Your task to perform on an android device: Show me productivity apps on the Play Store Image 0: 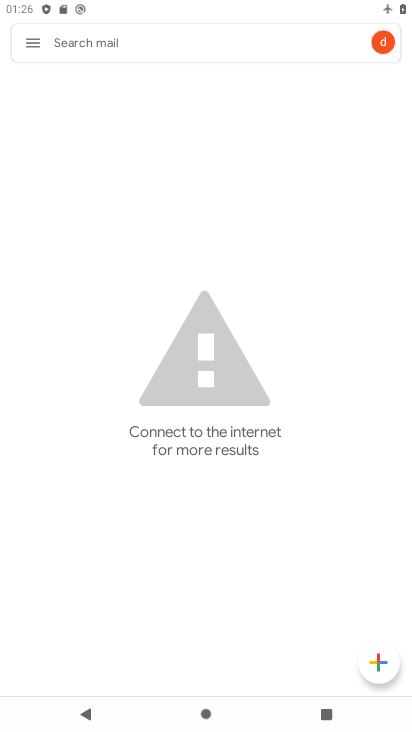
Step 0: press home button
Your task to perform on an android device: Show me productivity apps on the Play Store Image 1: 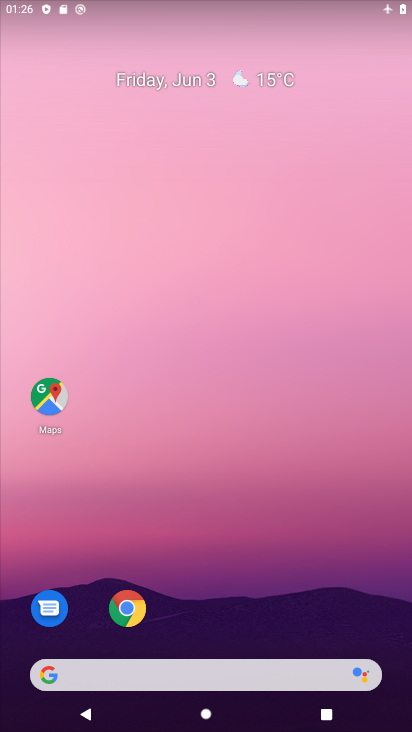
Step 1: drag from (301, 543) to (239, 307)
Your task to perform on an android device: Show me productivity apps on the Play Store Image 2: 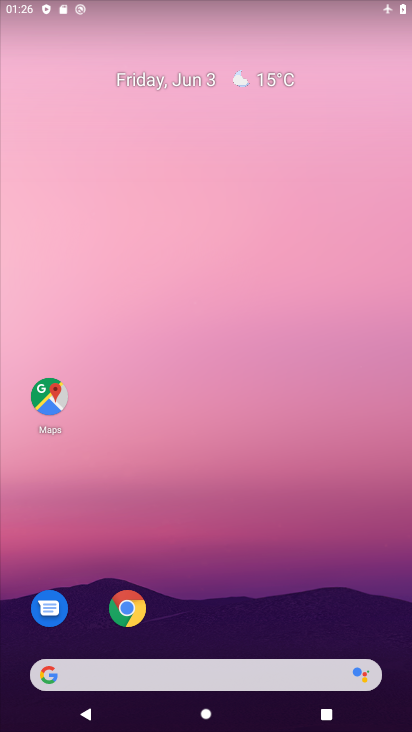
Step 2: drag from (311, 586) to (271, 201)
Your task to perform on an android device: Show me productivity apps on the Play Store Image 3: 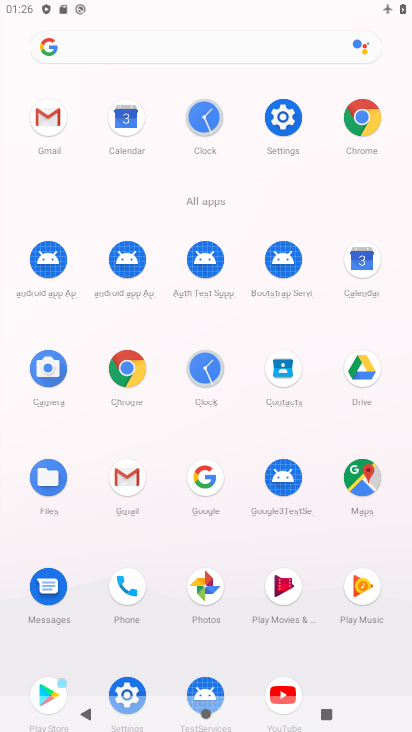
Step 3: drag from (240, 558) to (269, 234)
Your task to perform on an android device: Show me productivity apps on the Play Store Image 4: 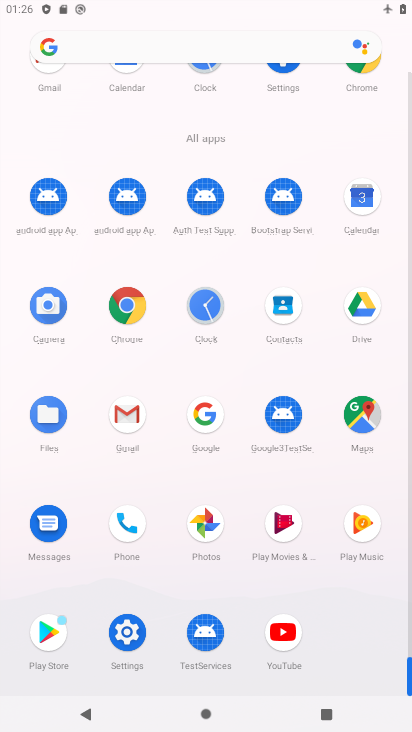
Step 4: click (61, 626)
Your task to perform on an android device: Show me productivity apps on the Play Store Image 5: 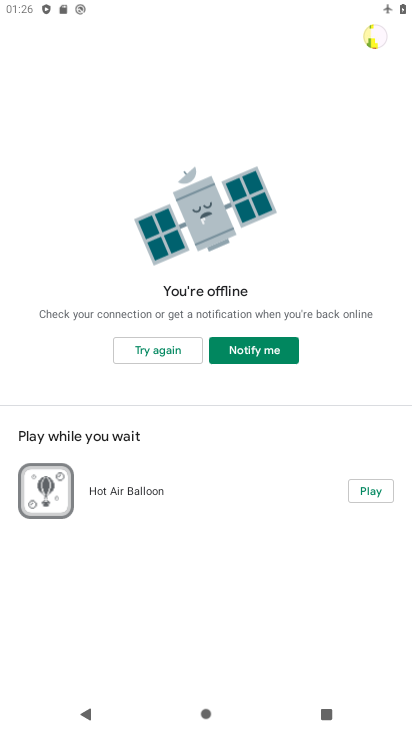
Step 5: task complete